Your task to perform on an android device: Set an alarm for 2pm Image 0: 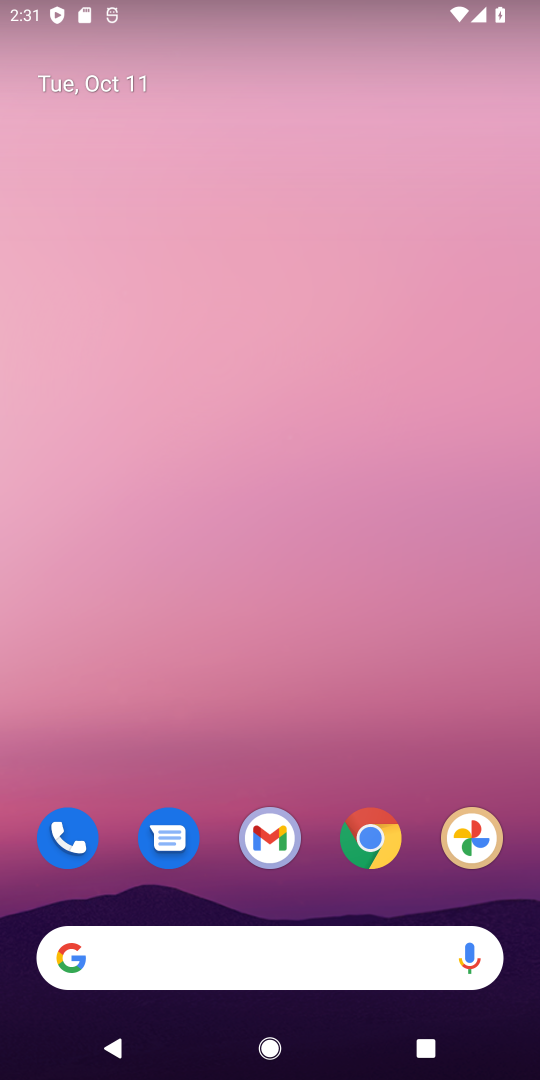
Step 0: click (372, 836)
Your task to perform on an android device: Set an alarm for 2pm Image 1: 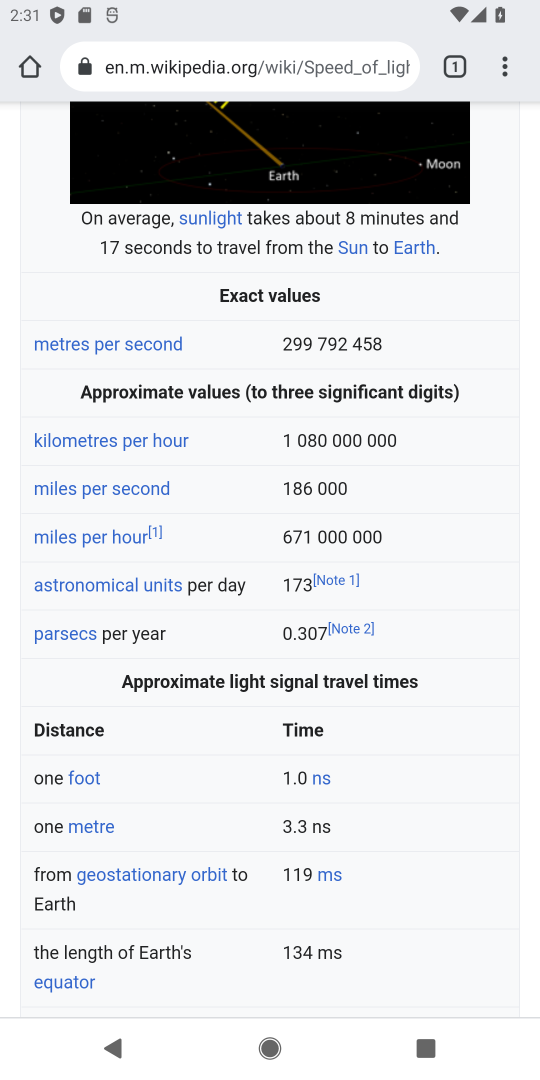
Step 1: press back button
Your task to perform on an android device: Set an alarm for 2pm Image 2: 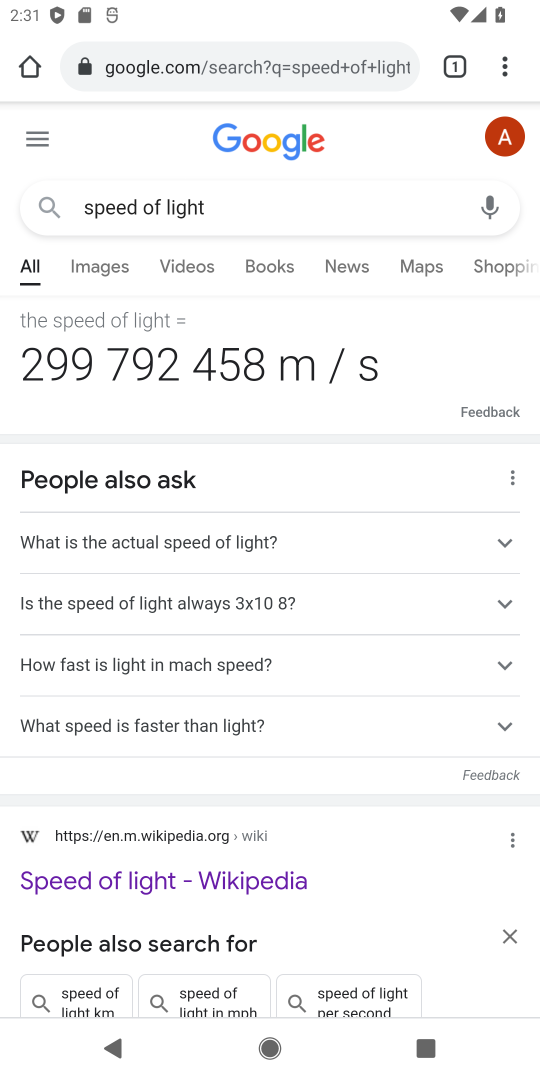
Step 2: press home button
Your task to perform on an android device: Set an alarm for 2pm Image 3: 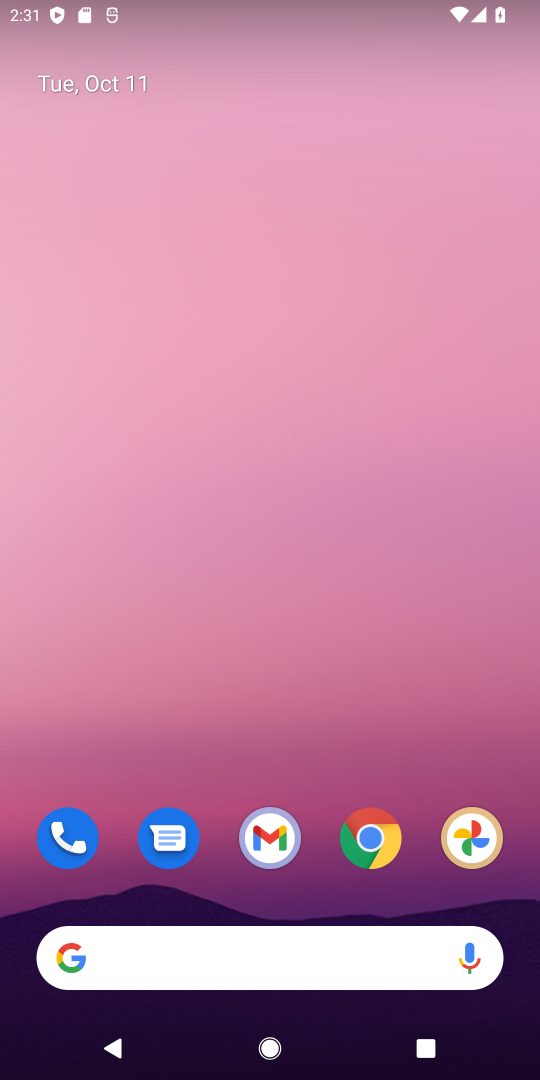
Step 3: drag from (271, 685) to (355, 92)
Your task to perform on an android device: Set an alarm for 2pm Image 4: 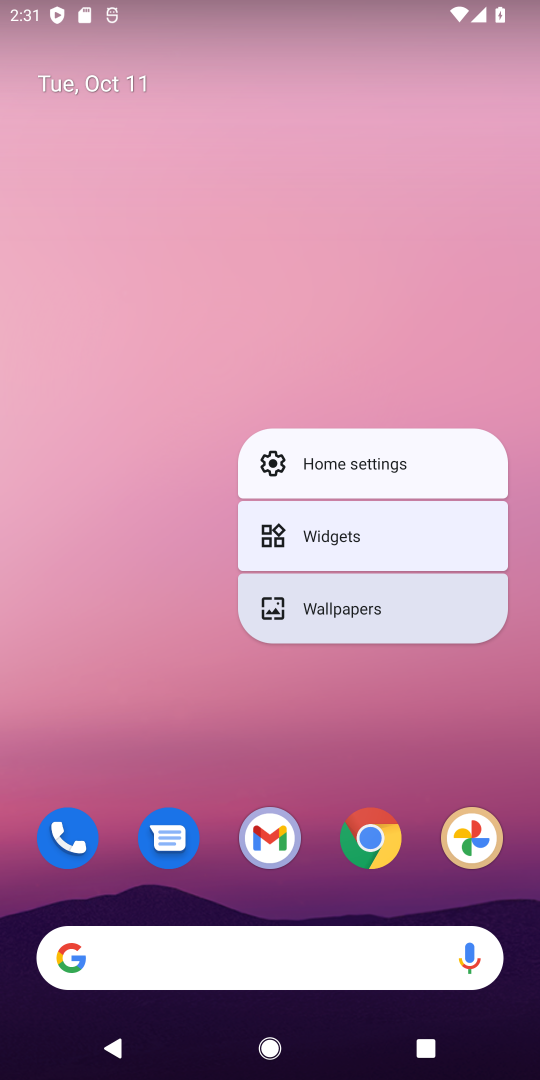
Step 4: drag from (236, 684) to (240, 168)
Your task to perform on an android device: Set an alarm for 2pm Image 5: 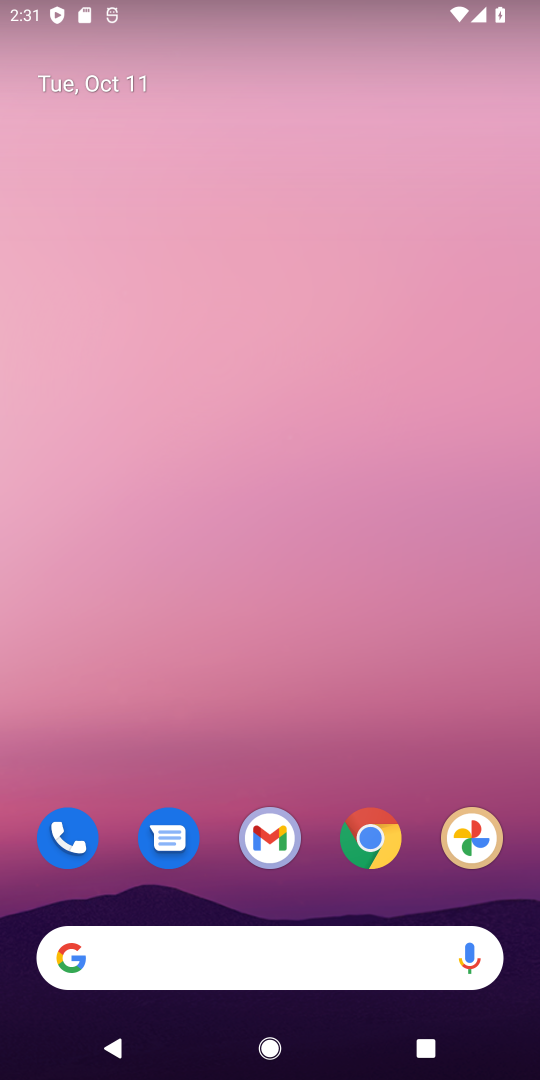
Step 5: drag from (215, 803) to (238, 86)
Your task to perform on an android device: Set an alarm for 2pm Image 6: 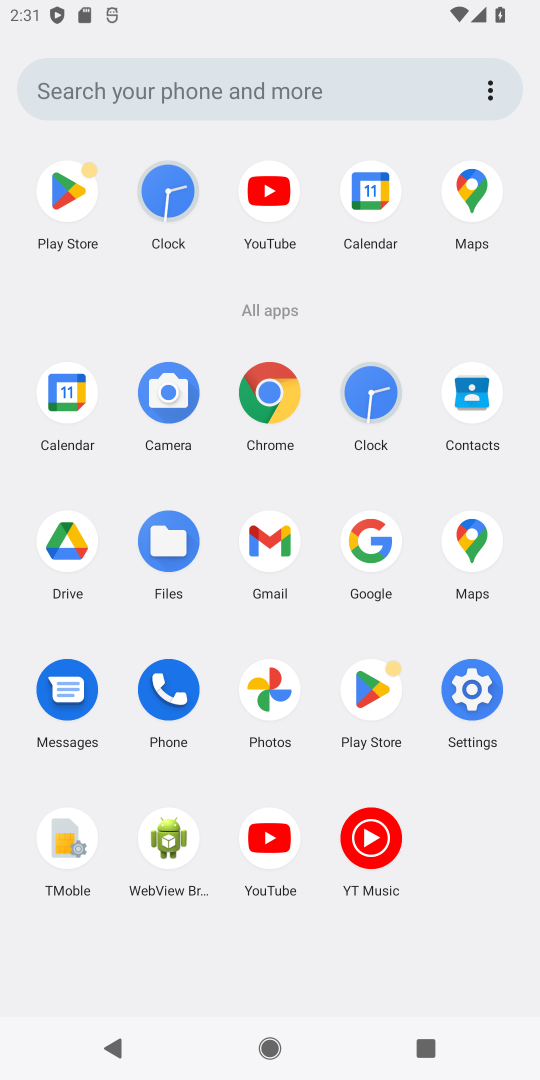
Step 6: click (370, 381)
Your task to perform on an android device: Set an alarm for 2pm Image 7: 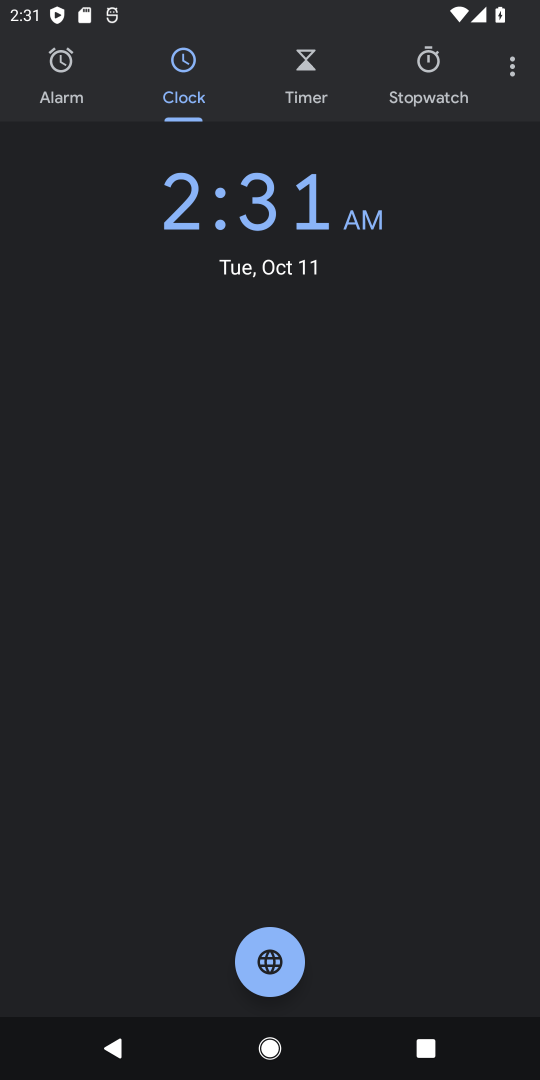
Step 7: click (70, 98)
Your task to perform on an android device: Set an alarm for 2pm Image 8: 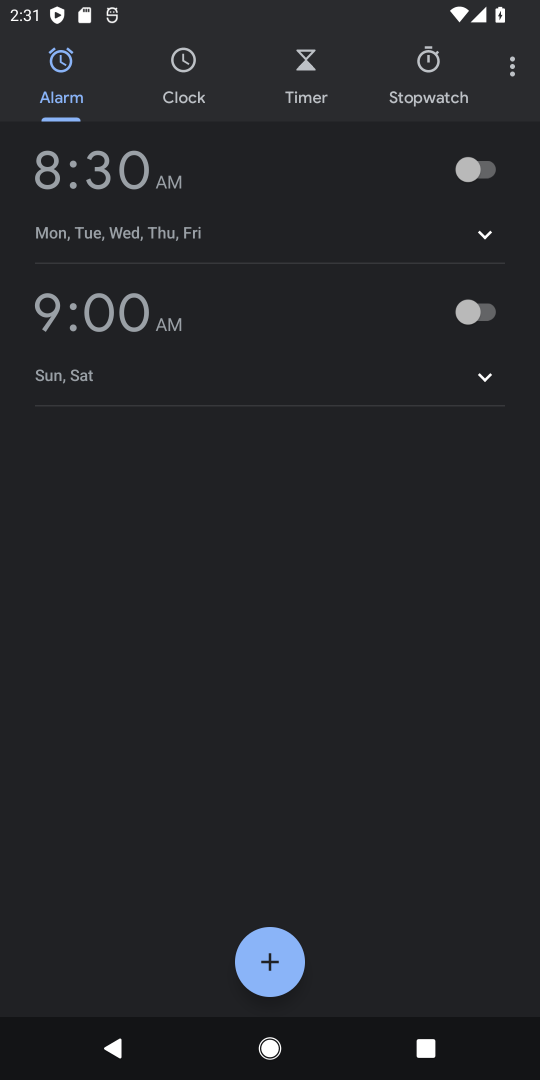
Step 8: click (482, 245)
Your task to perform on an android device: Set an alarm for 2pm Image 9: 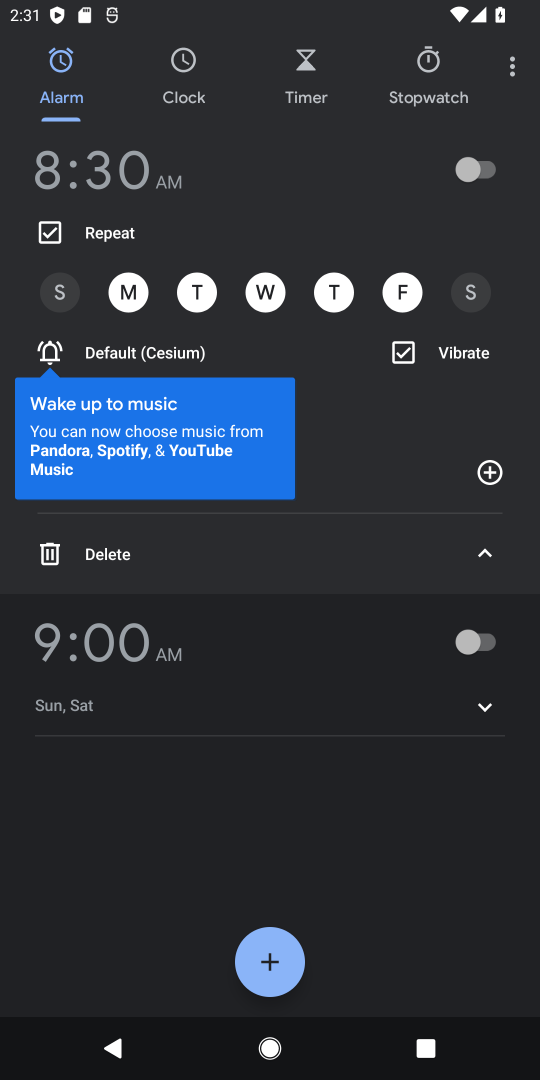
Step 9: click (132, 317)
Your task to perform on an android device: Set an alarm for 2pm Image 10: 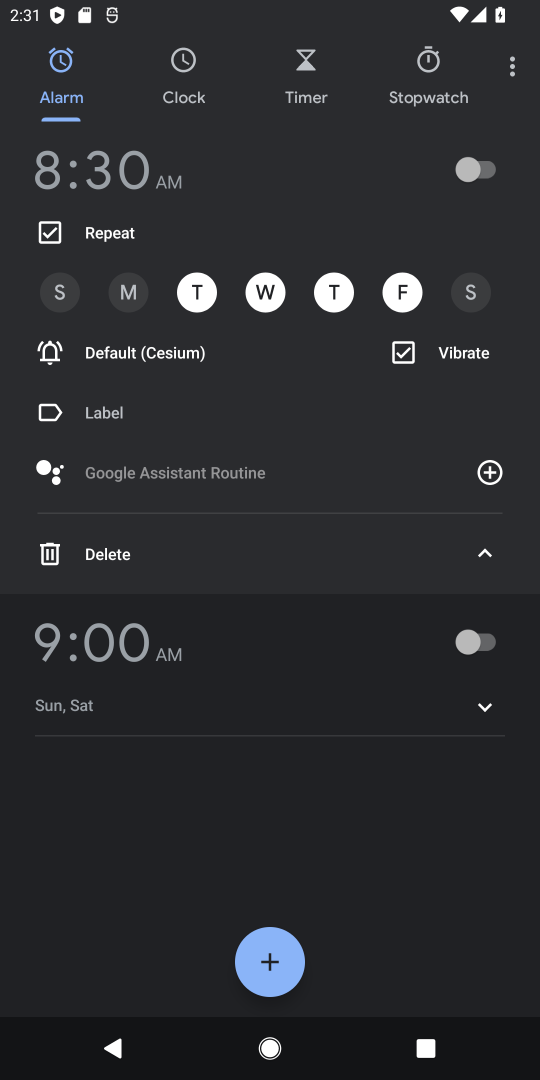
Step 10: click (491, 712)
Your task to perform on an android device: Set an alarm for 2pm Image 11: 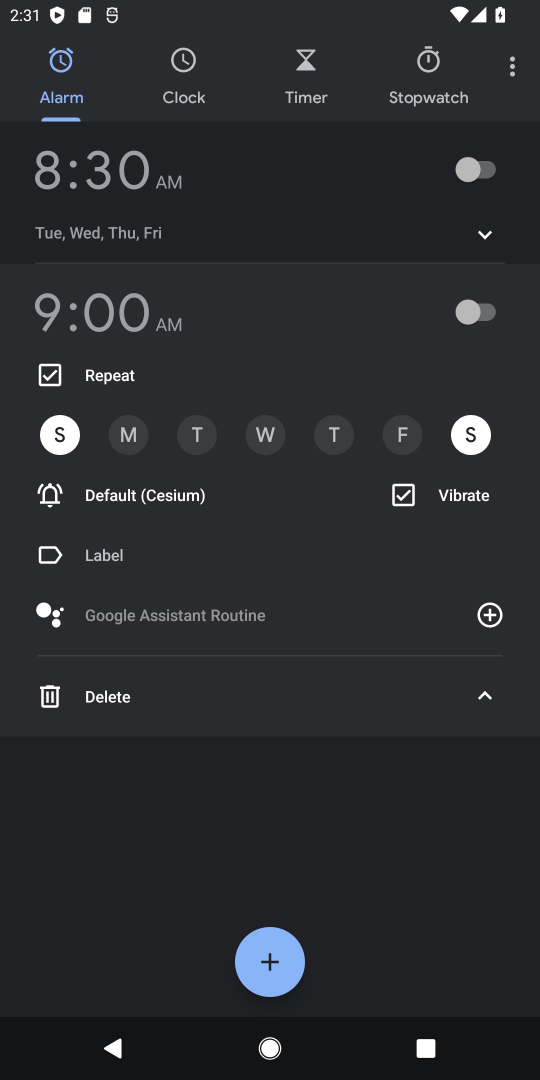
Step 11: click (118, 372)
Your task to perform on an android device: Set an alarm for 2pm Image 12: 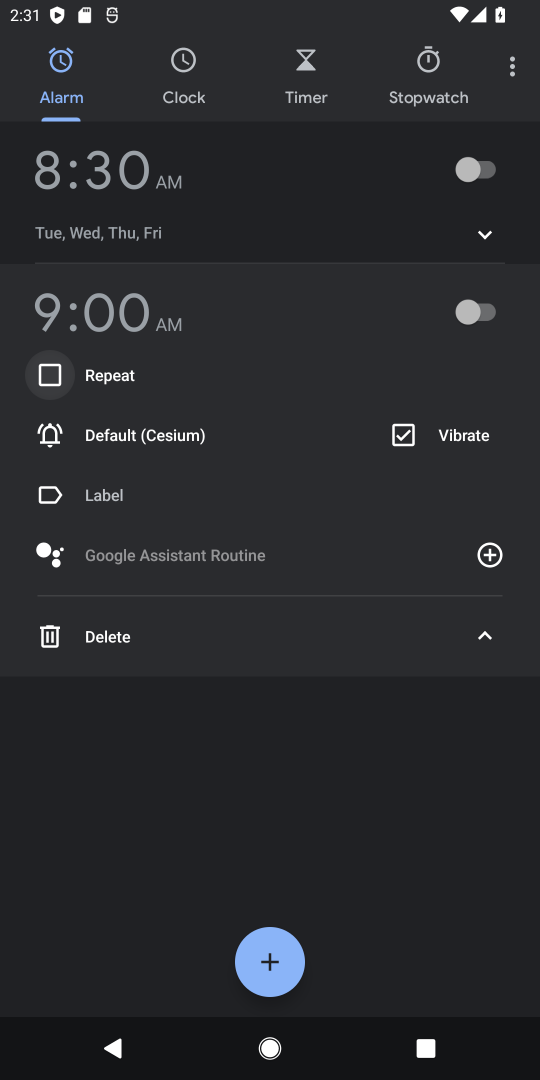
Step 12: click (139, 317)
Your task to perform on an android device: Set an alarm for 2pm Image 13: 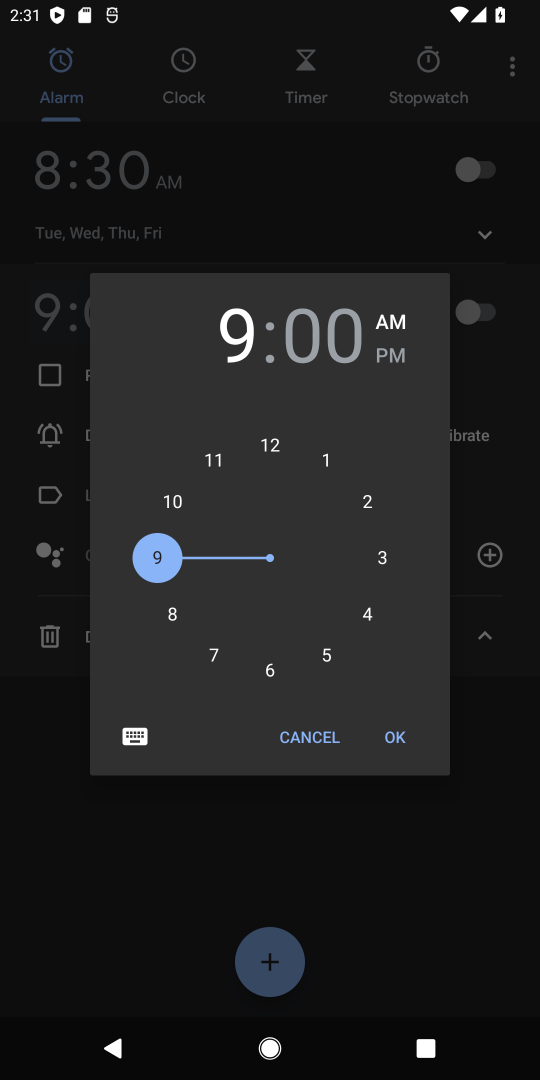
Step 13: click (142, 317)
Your task to perform on an android device: Set an alarm for 2pm Image 14: 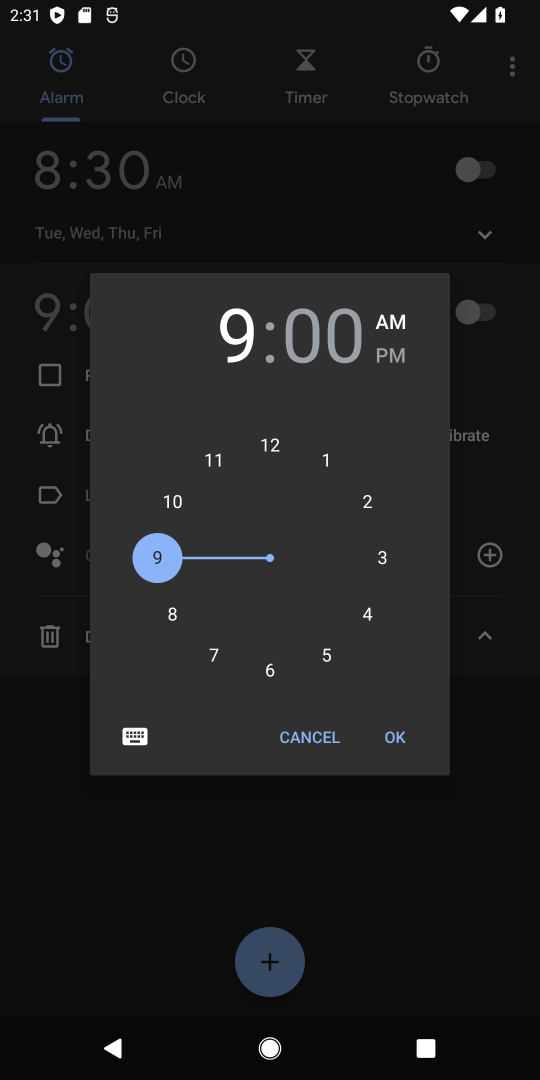
Step 14: click (363, 503)
Your task to perform on an android device: Set an alarm for 2pm Image 15: 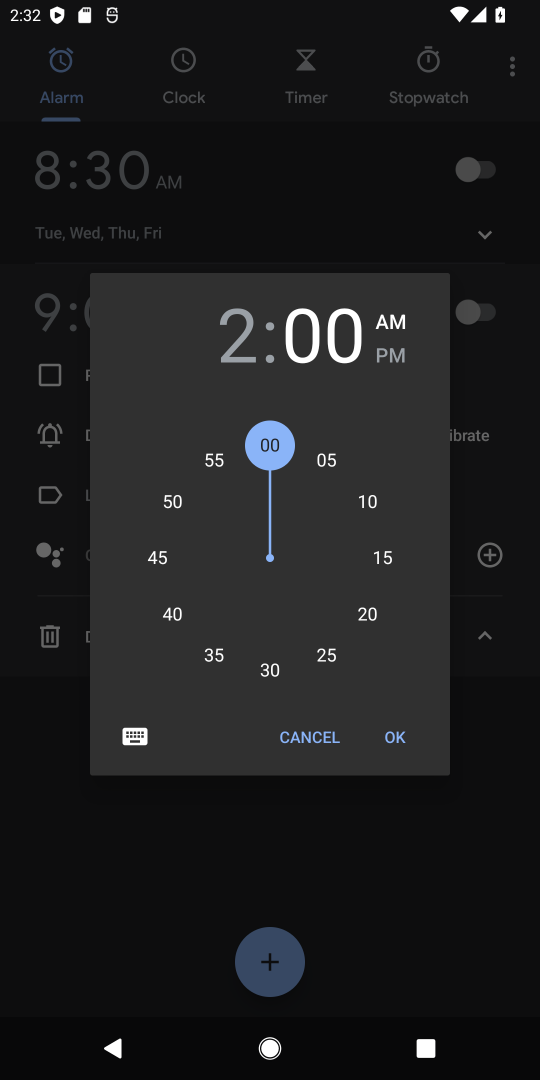
Step 15: click (361, 358)
Your task to perform on an android device: Set an alarm for 2pm Image 16: 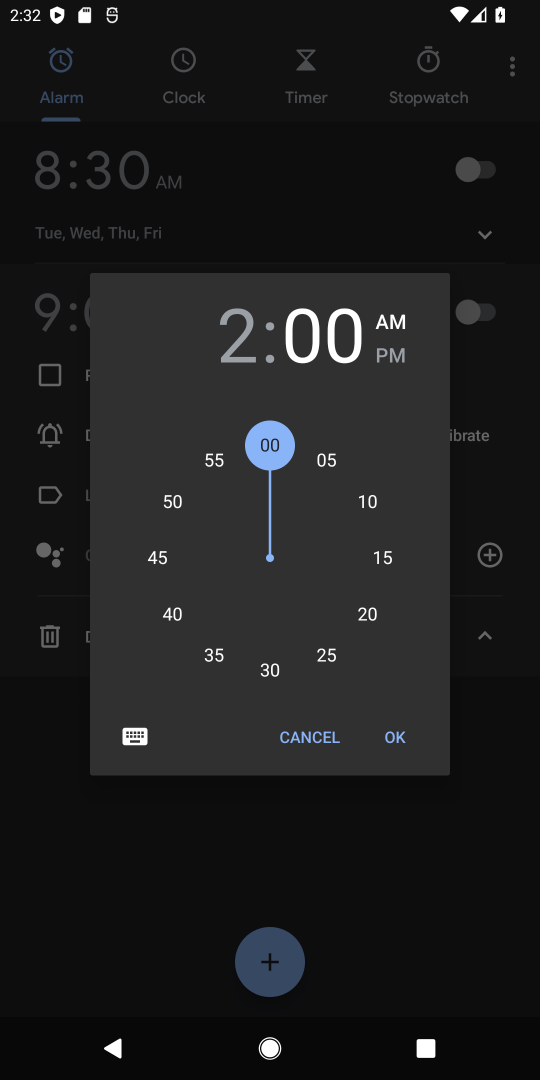
Step 16: click (382, 354)
Your task to perform on an android device: Set an alarm for 2pm Image 17: 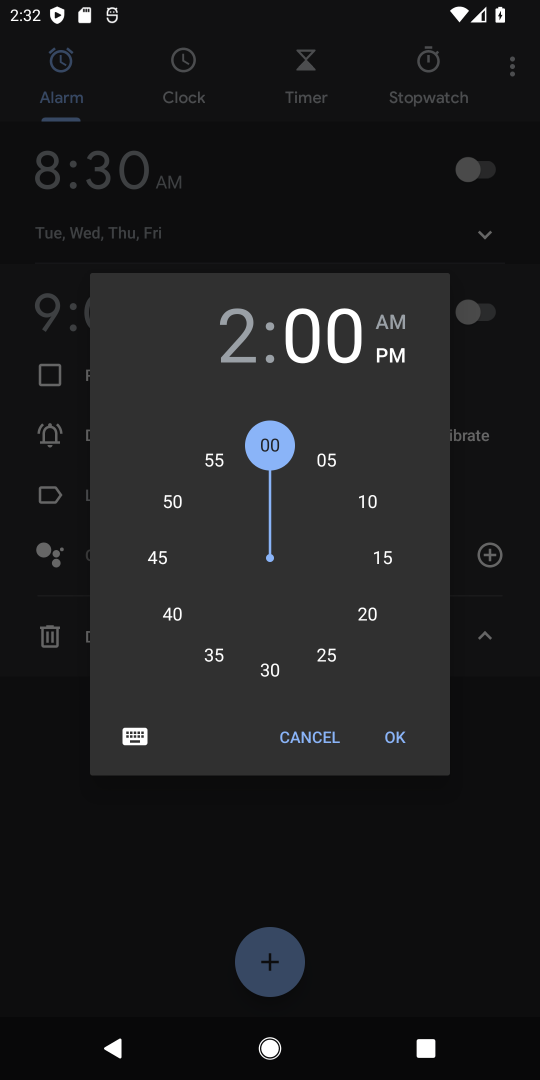
Step 17: click (372, 509)
Your task to perform on an android device: Set an alarm for 2pm Image 18: 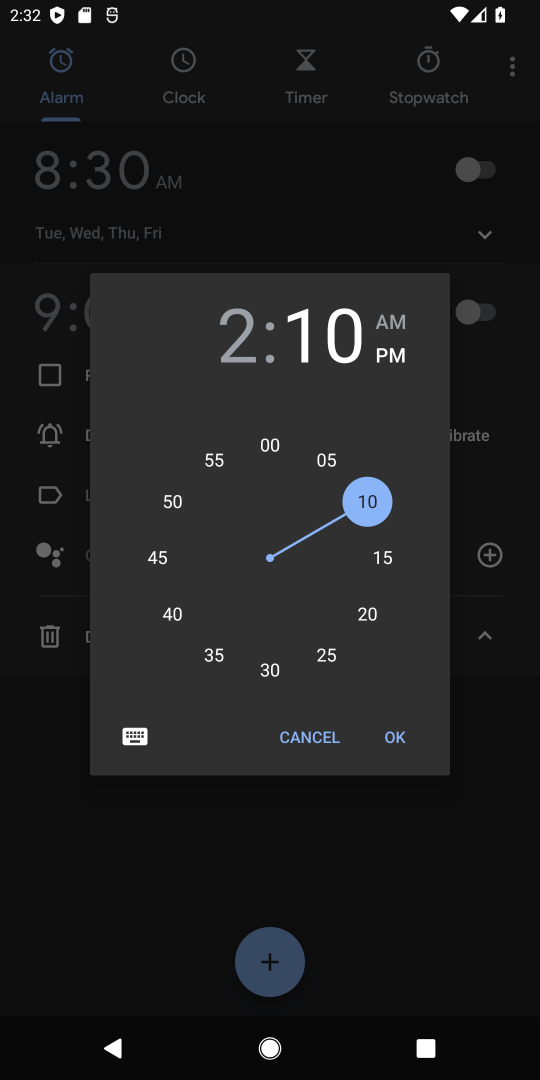
Step 18: click (260, 444)
Your task to perform on an android device: Set an alarm for 2pm Image 19: 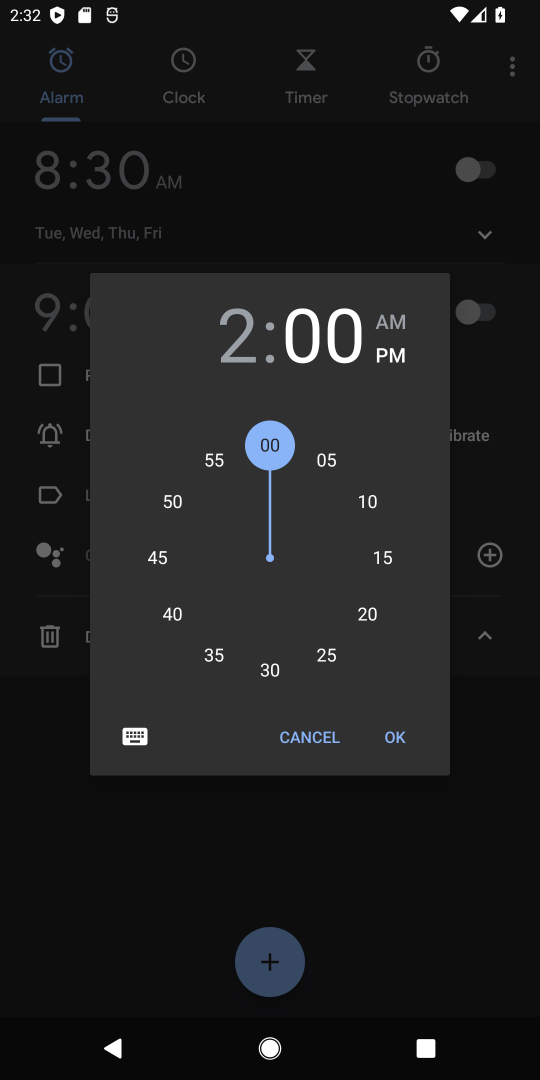
Step 19: click (399, 739)
Your task to perform on an android device: Set an alarm for 2pm Image 20: 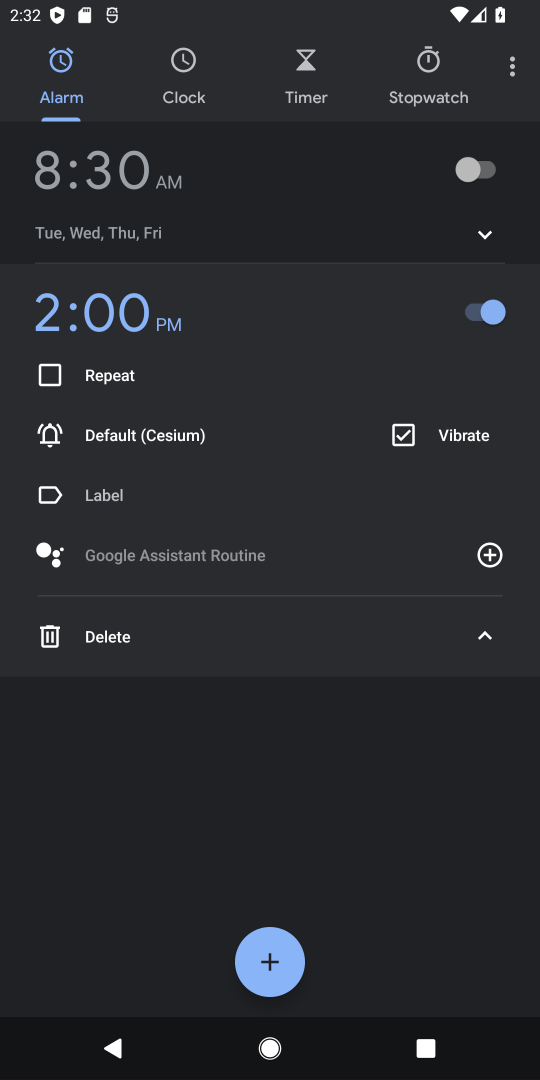
Step 20: click (483, 231)
Your task to perform on an android device: Set an alarm for 2pm Image 21: 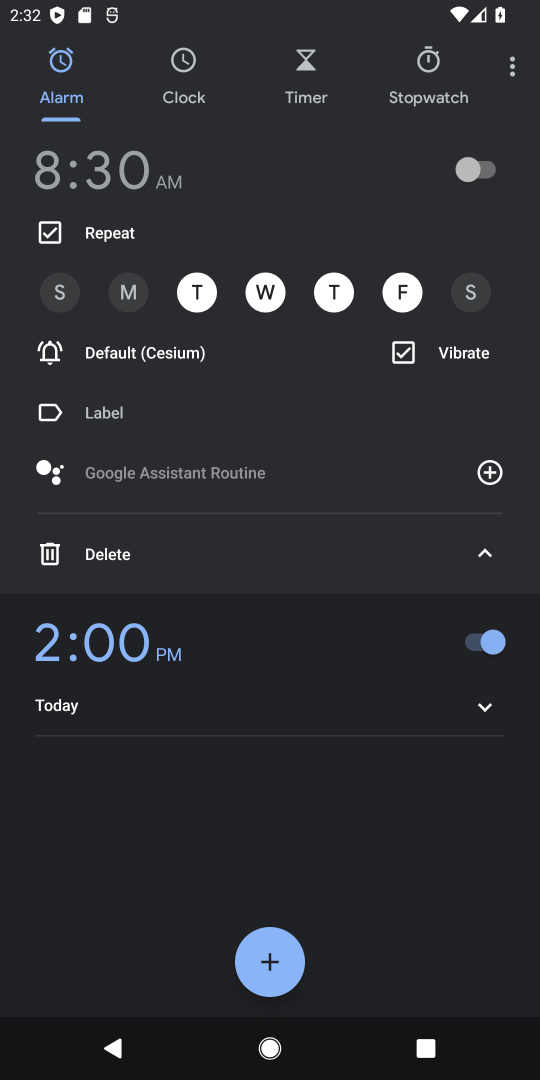
Step 21: click (127, 304)
Your task to perform on an android device: Set an alarm for 2pm Image 22: 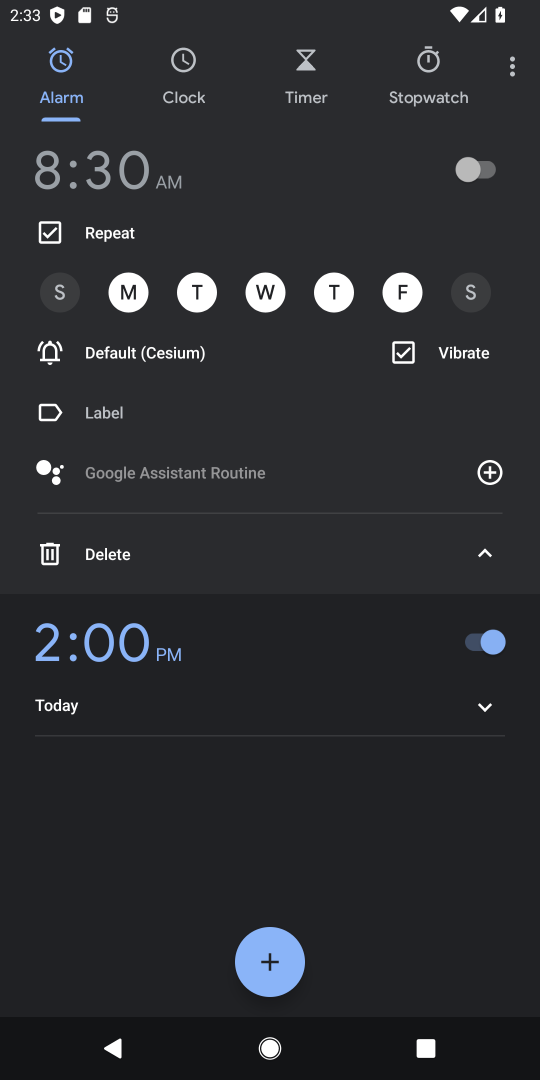
Step 22: drag from (294, 598) to (296, 329)
Your task to perform on an android device: Set an alarm for 2pm Image 23: 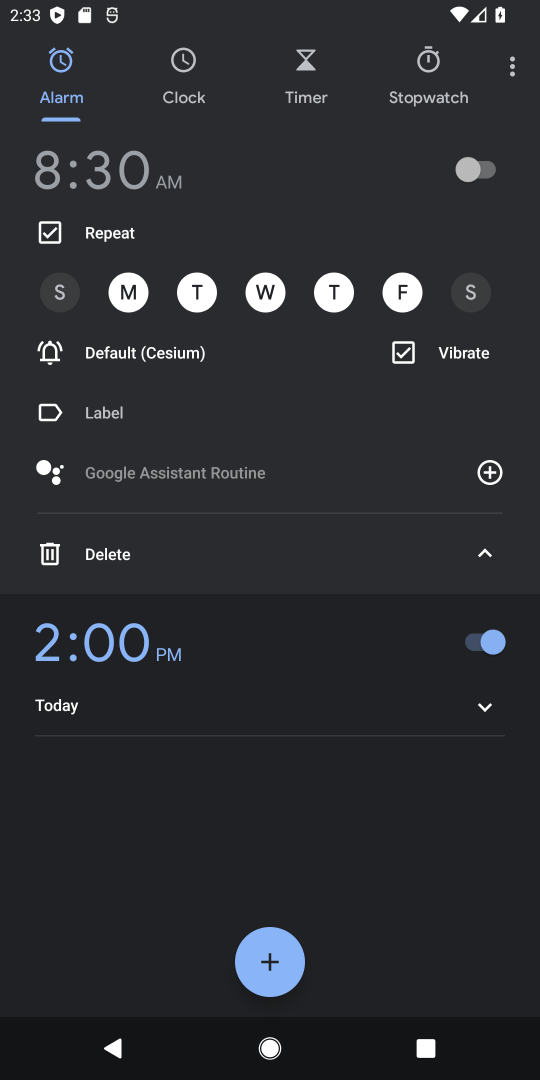
Step 23: click (484, 166)
Your task to perform on an android device: Set an alarm for 2pm Image 24: 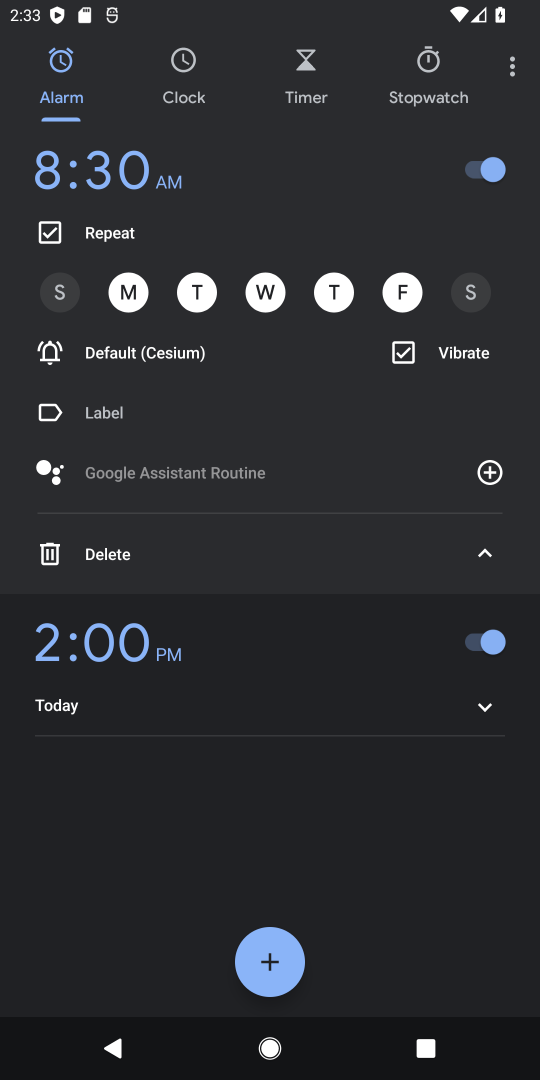
Step 24: click (442, 901)
Your task to perform on an android device: Set an alarm for 2pm Image 25: 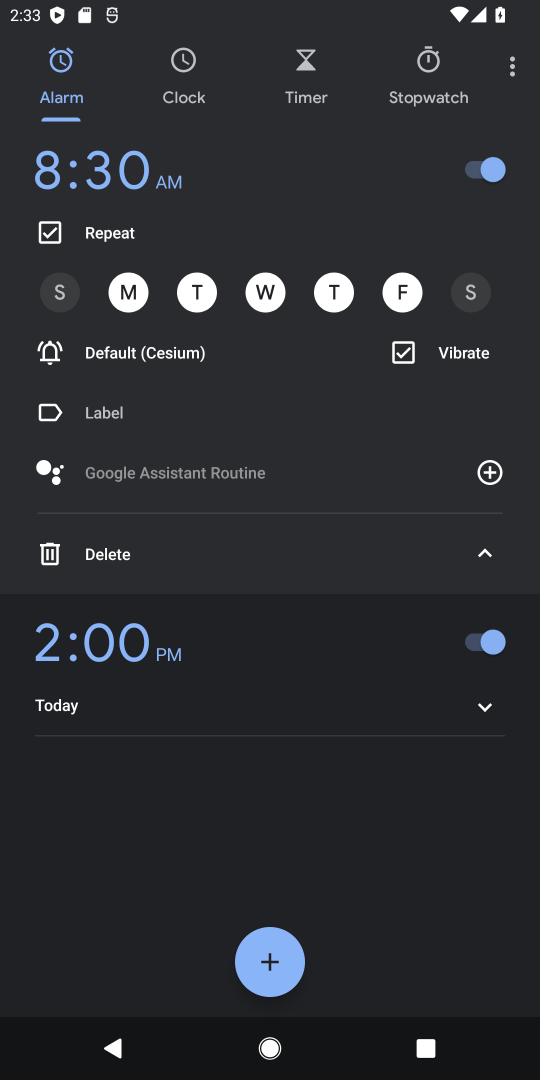
Step 25: task complete